Your task to perform on an android device: Open location settings Image 0: 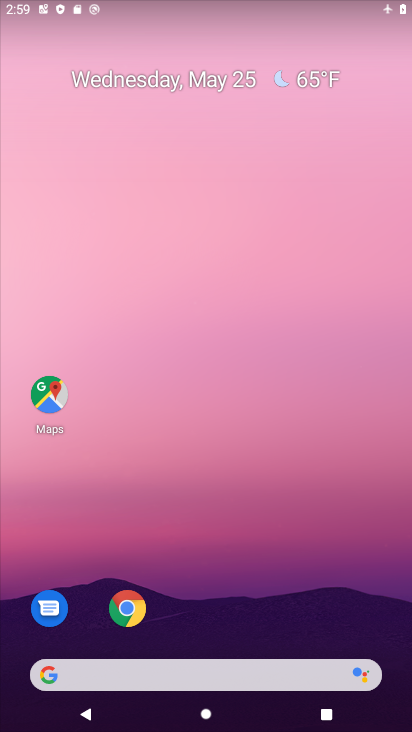
Step 0: drag from (222, 617) to (271, 13)
Your task to perform on an android device: Open location settings Image 1: 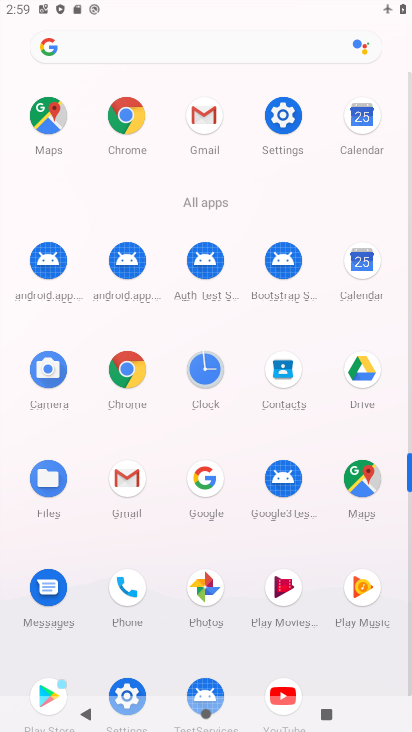
Step 1: click (279, 130)
Your task to perform on an android device: Open location settings Image 2: 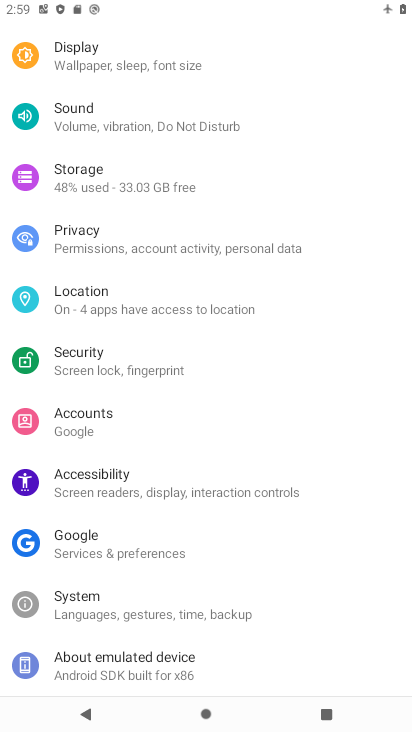
Step 2: click (93, 311)
Your task to perform on an android device: Open location settings Image 3: 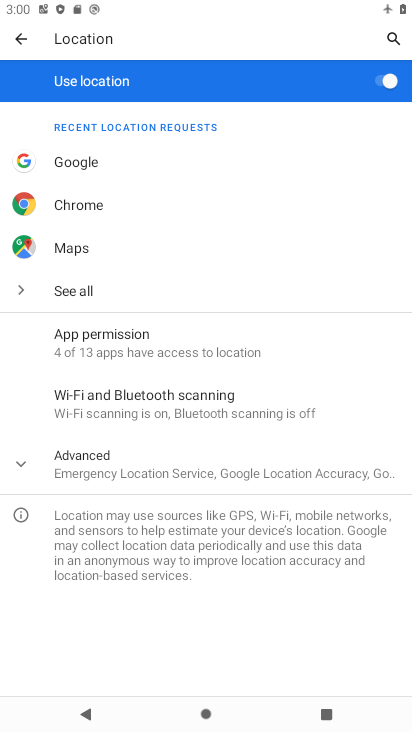
Step 3: task complete